Your task to perform on an android device: toggle wifi Image 0: 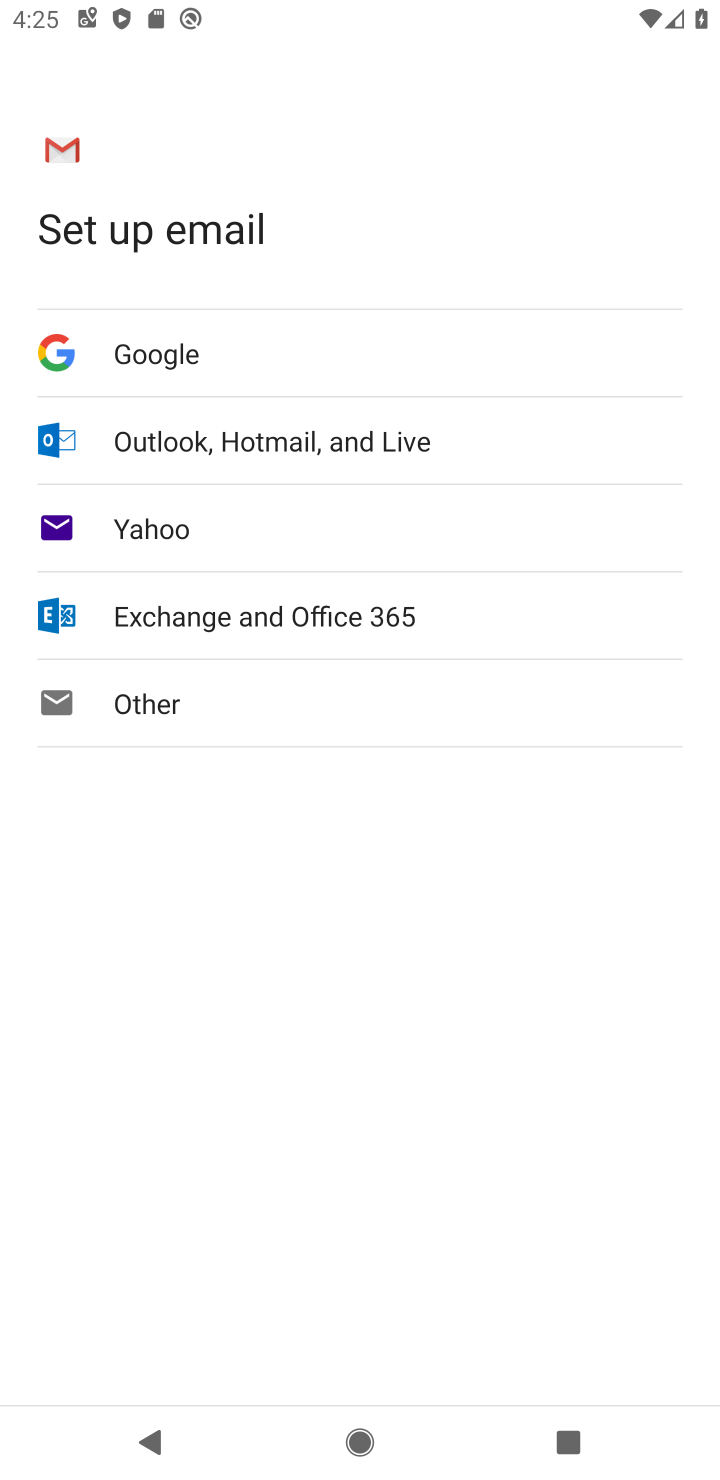
Step 0: press home button
Your task to perform on an android device: toggle wifi Image 1: 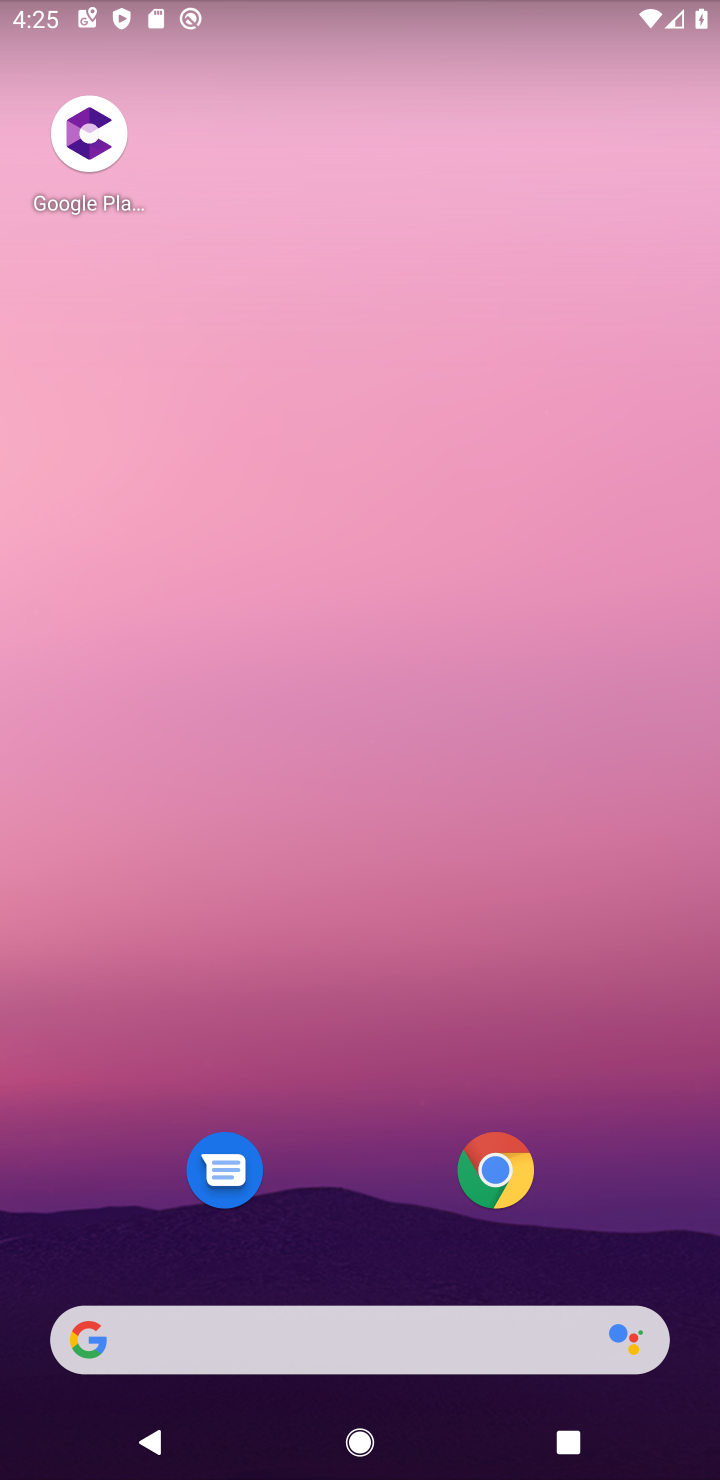
Step 1: drag from (296, 1189) to (301, 46)
Your task to perform on an android device: toggle wifi Image 2: 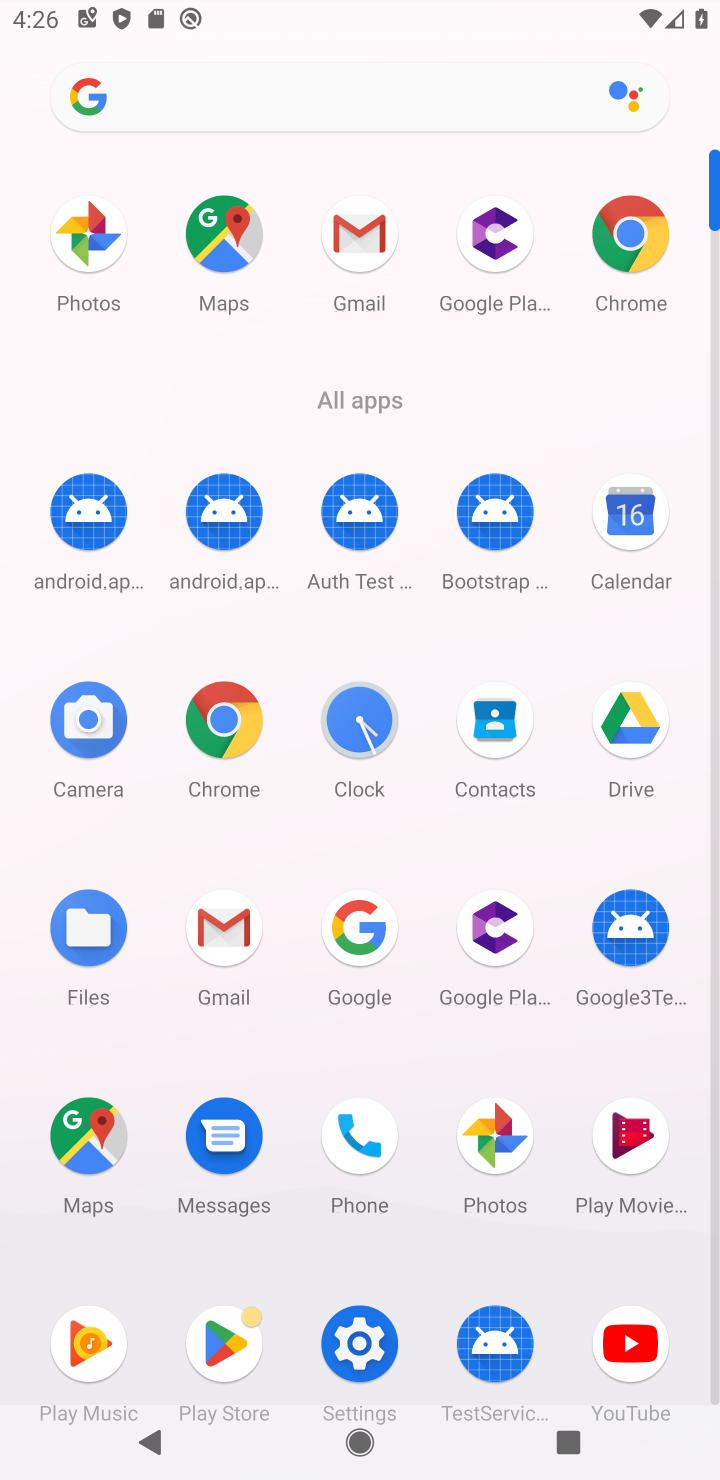
Step 2: click (366, 1357)
Your task to perform on an android device: toggle wifi Image 3: 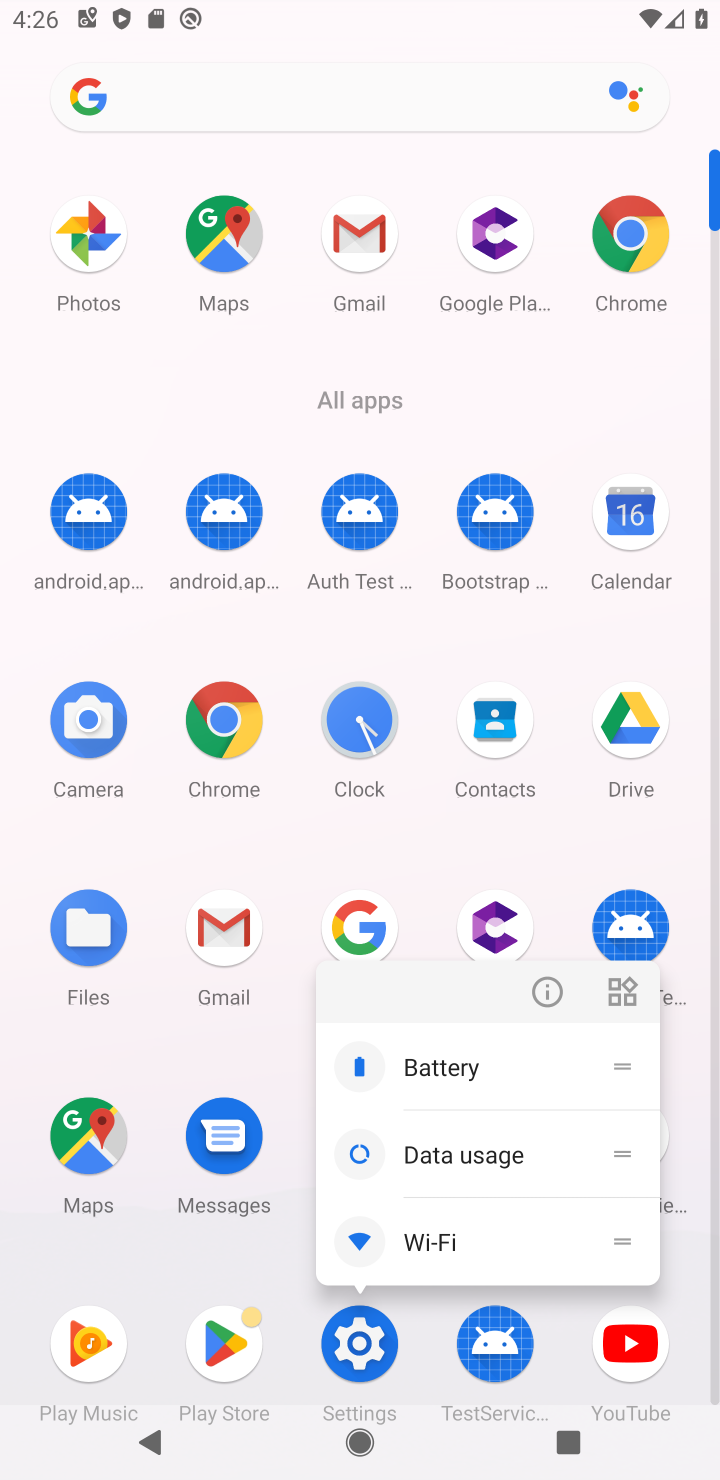
Step 3: click (398, 1359)
Your task to perform on an android device: toggle wifi Image 4: 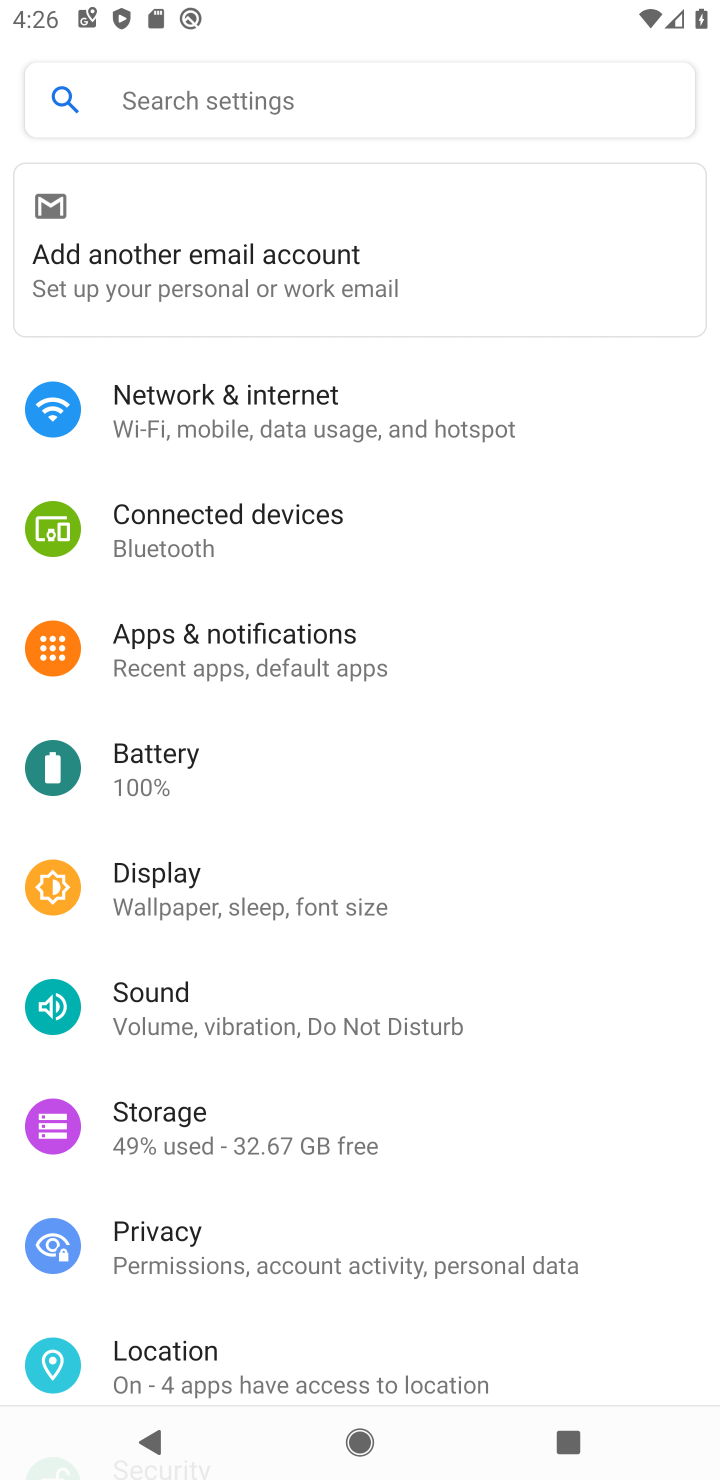
Step 4: click (179, 429)
Your task to perform on an android device: toggle wifi Image 5: 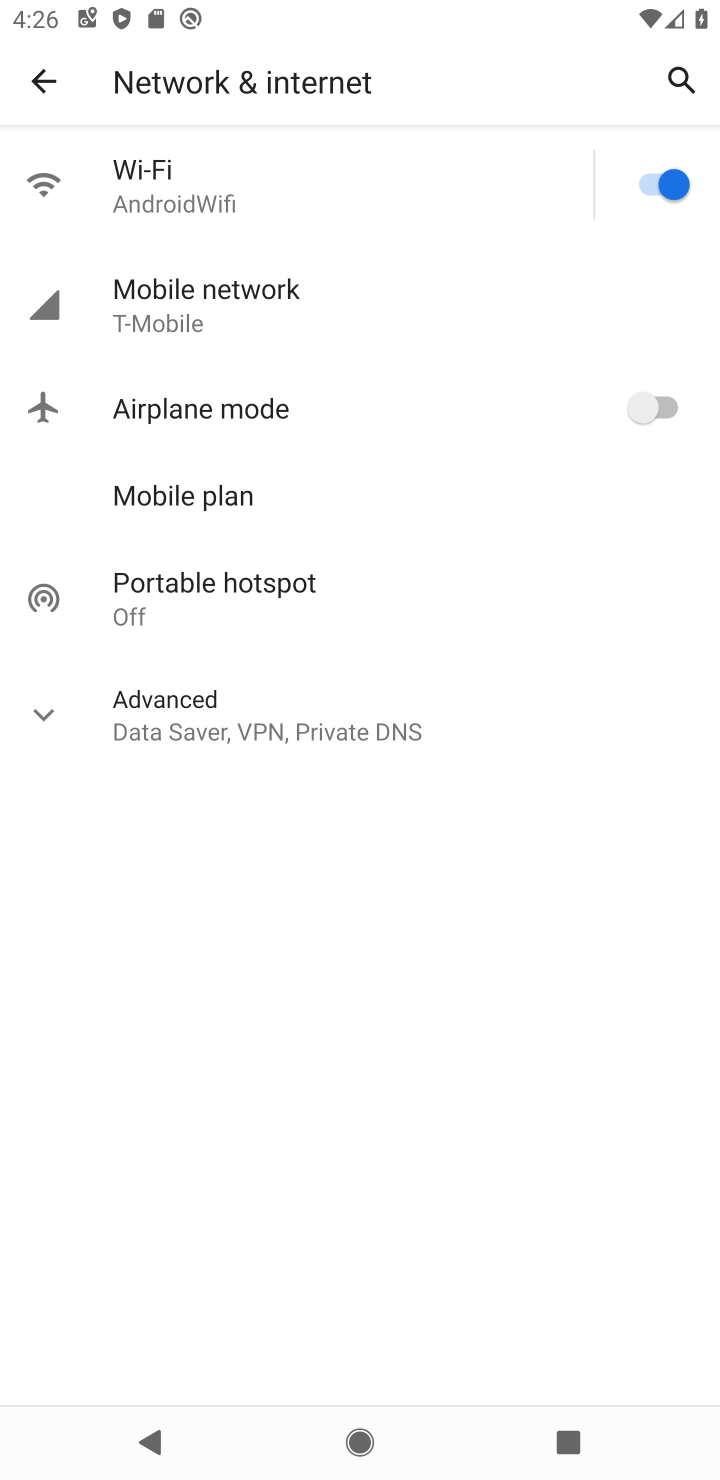
Step 5: click (220, 190)
Your task to perform on an android device: toggle wifi Image 6: 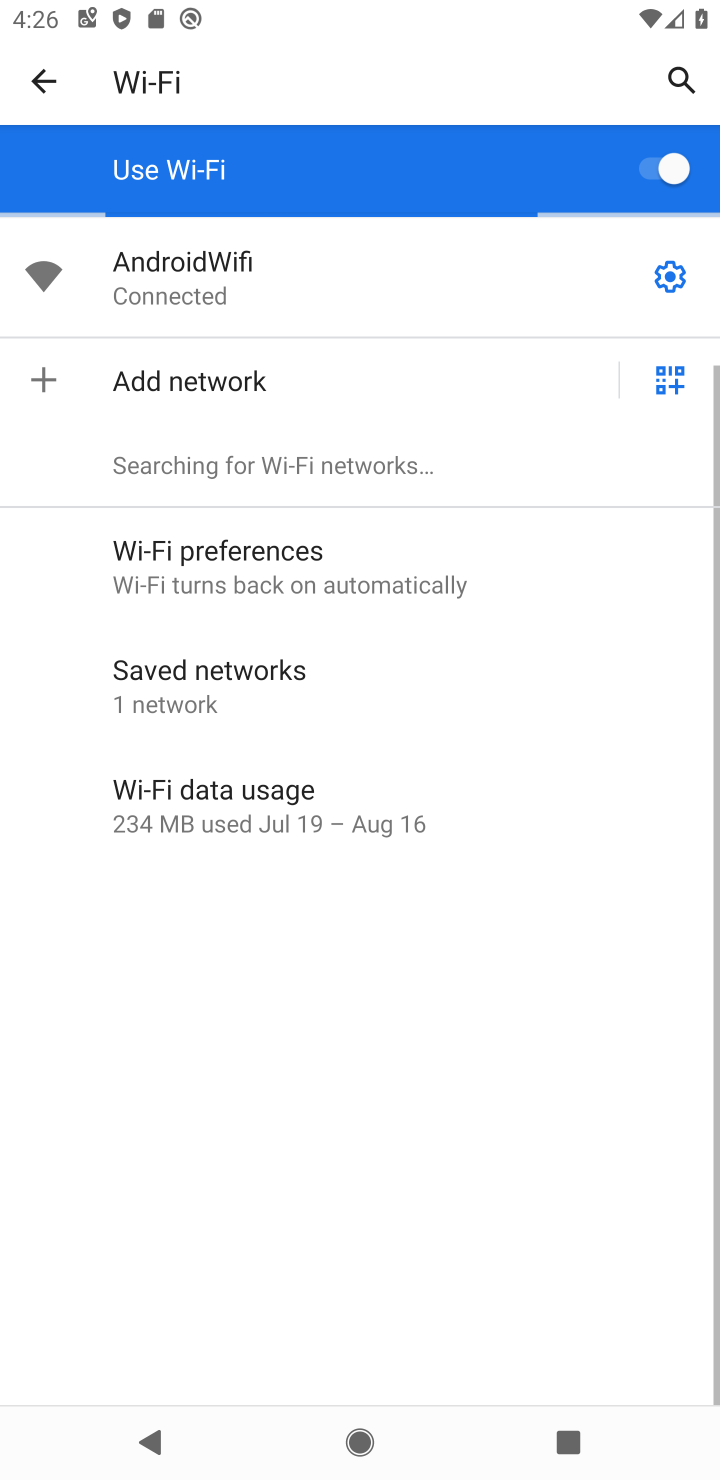
Step 6: click (651, 175)
Your task to perform on an android device: toggle wifi Image 7: 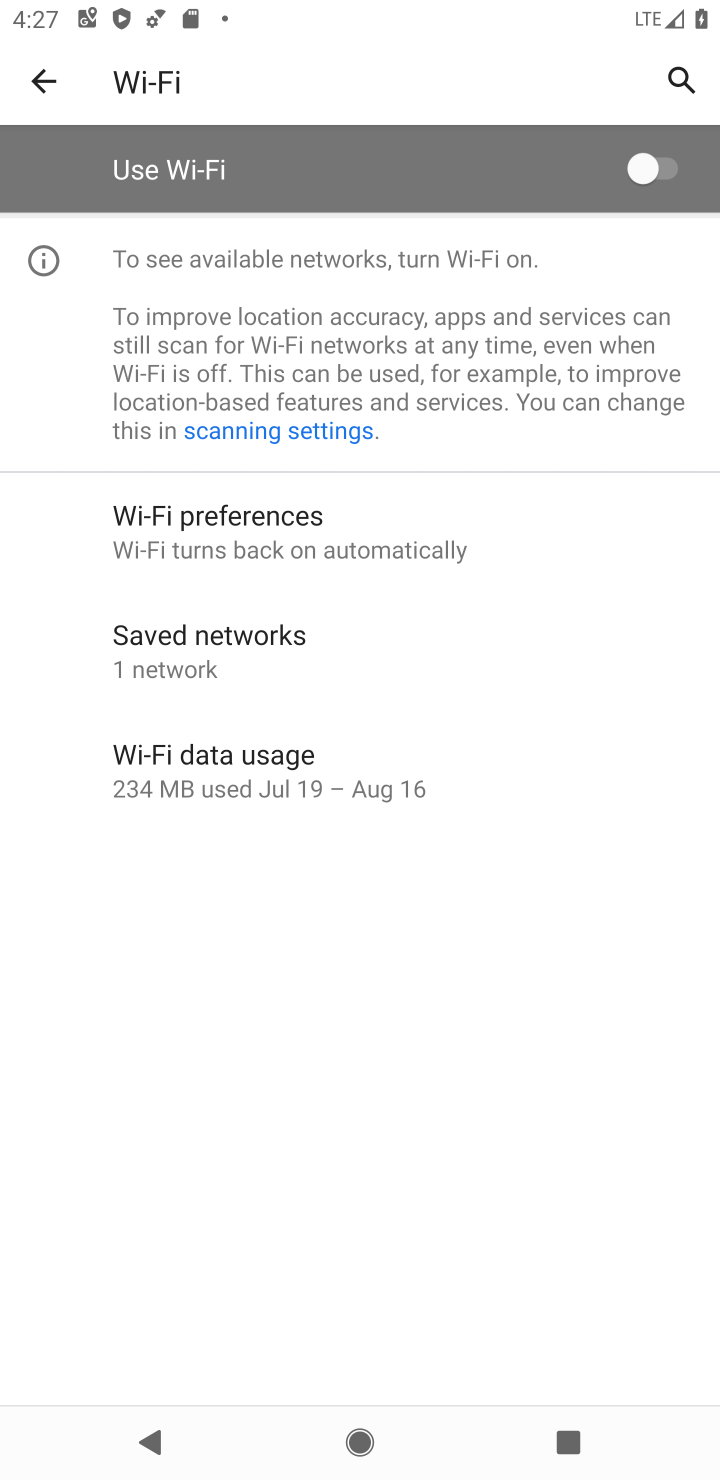
Step 7: task complete